Your task to perform on an android device: turn on sleep mode Image 0: 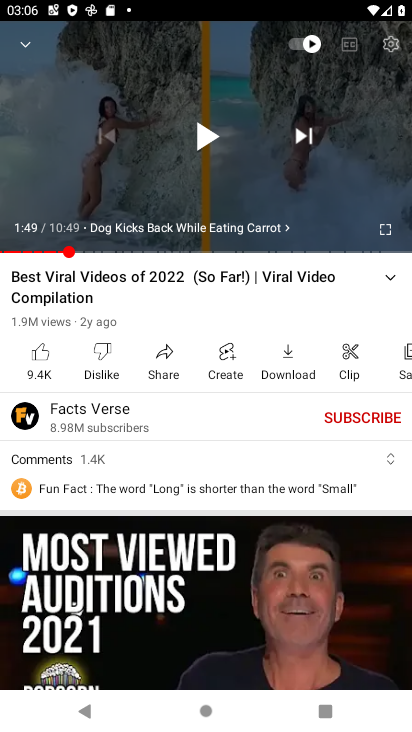
Step 0: press home button
Your task to perform on an android device: turn on sleep mode Image 1: 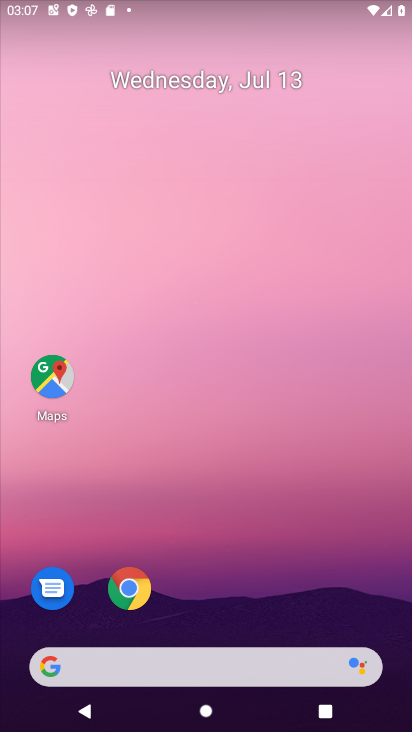
Step 1: drag from (397, 685) to (335, 126)
Your task to perform on an android device: turn on sleep mode Image 2: 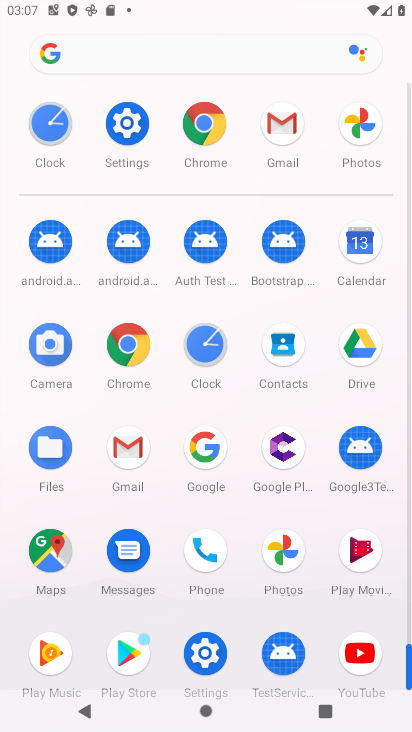
Step 2: click (133, 138)
Your task to perform on an android device: turn on sleep mode Image 3: 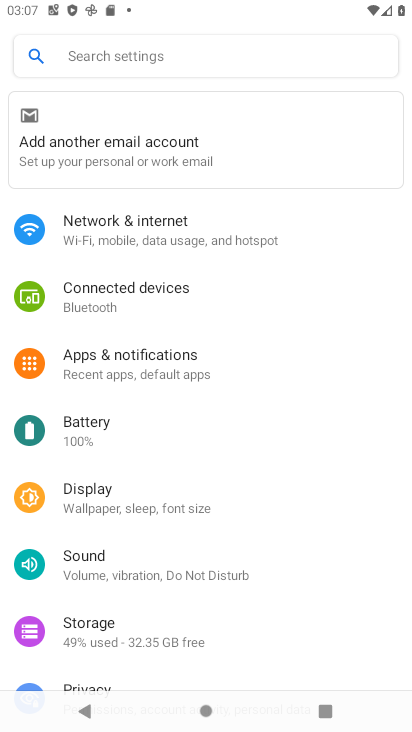
Step 3: drag from (207, 612) to (211, 287)
Your task to perform on an android device: turn on sleep mode Image 4: 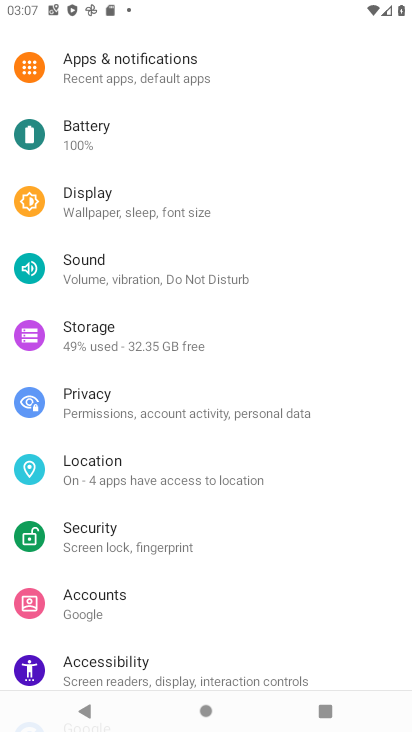
Step 4: click (93, 196)
Your task to perform on an android device: turn on sleep mode Image 5: 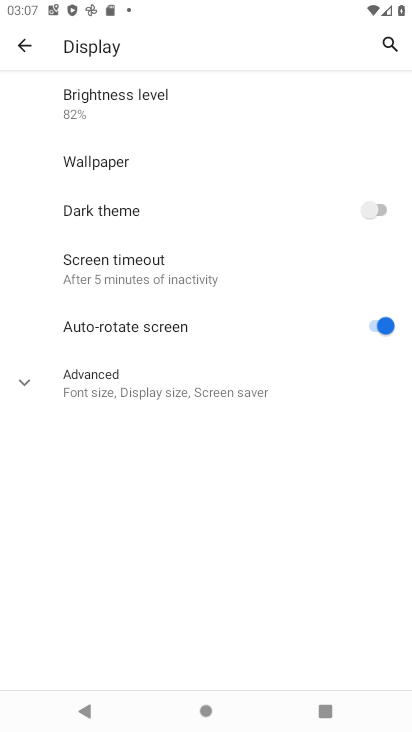
Step 5: click (27, 384)
Your task to perform on an android device: turn on sleep mode Image 6: 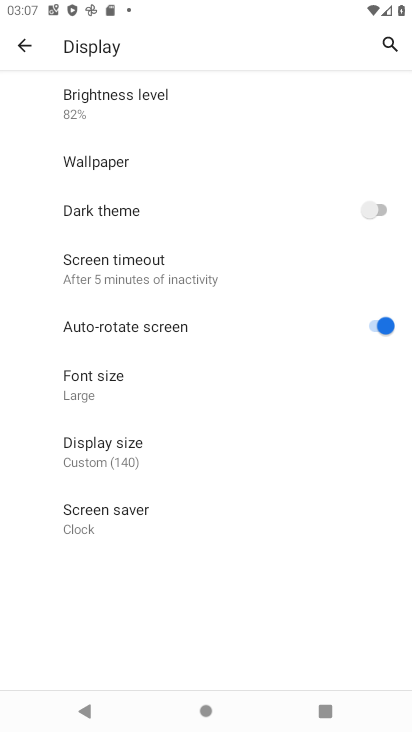
Step 6: click (95, 271)
Your task to perform on an android device: turn on sleep mode Image 7: 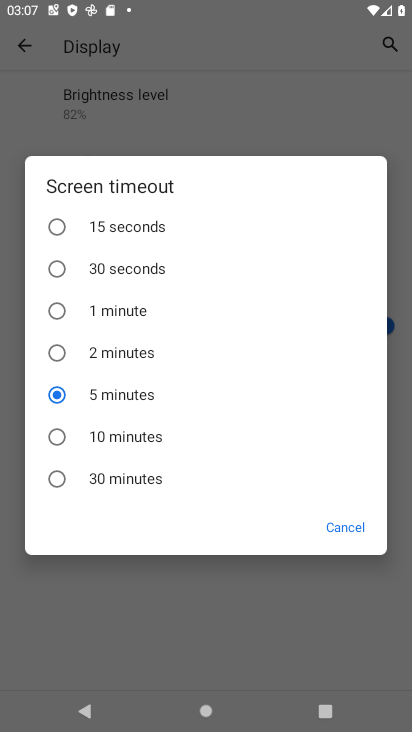
Step 7: task complete